Your task to perform on an android device: Open the stopwatch Image 0: 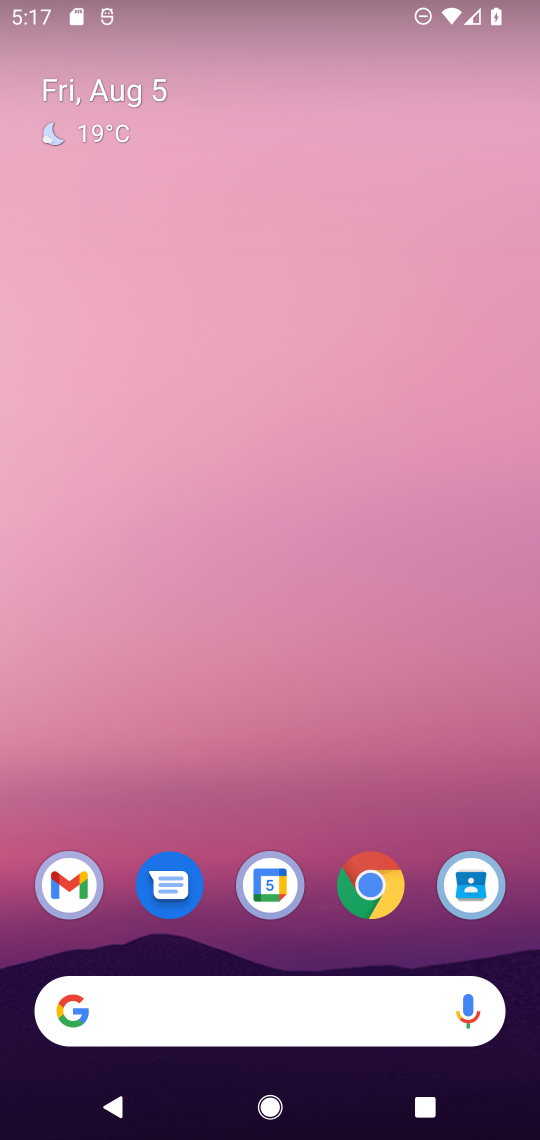
Step 0: drag from (317, 833) to (292, 23)
Your task to perform on an android device: Open the stopwatch Image 1: 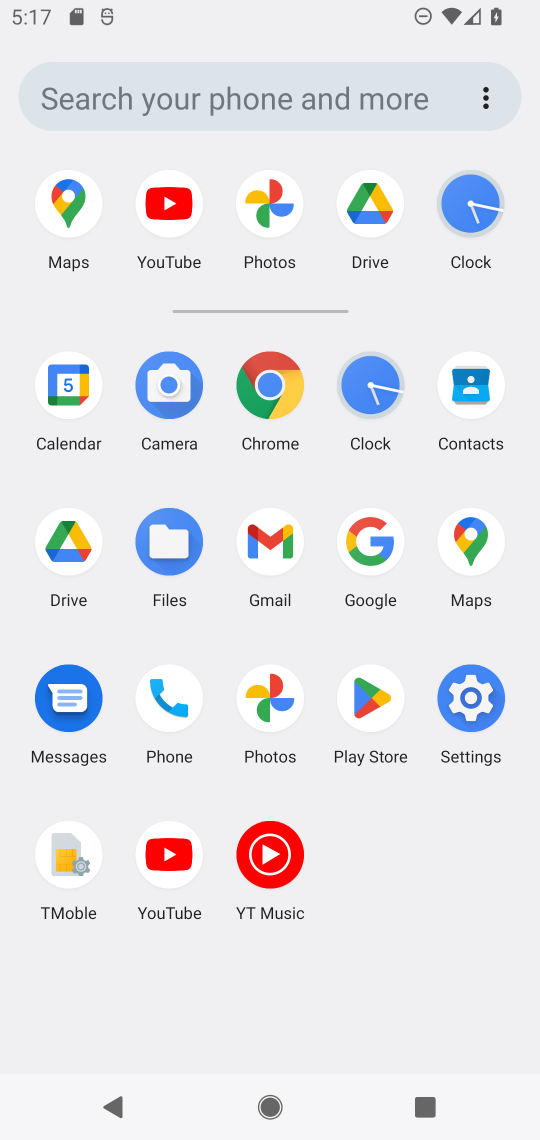
Step 1: click (377, 392)
Your task to perform on an android device: Open the stopwatch Image 2: 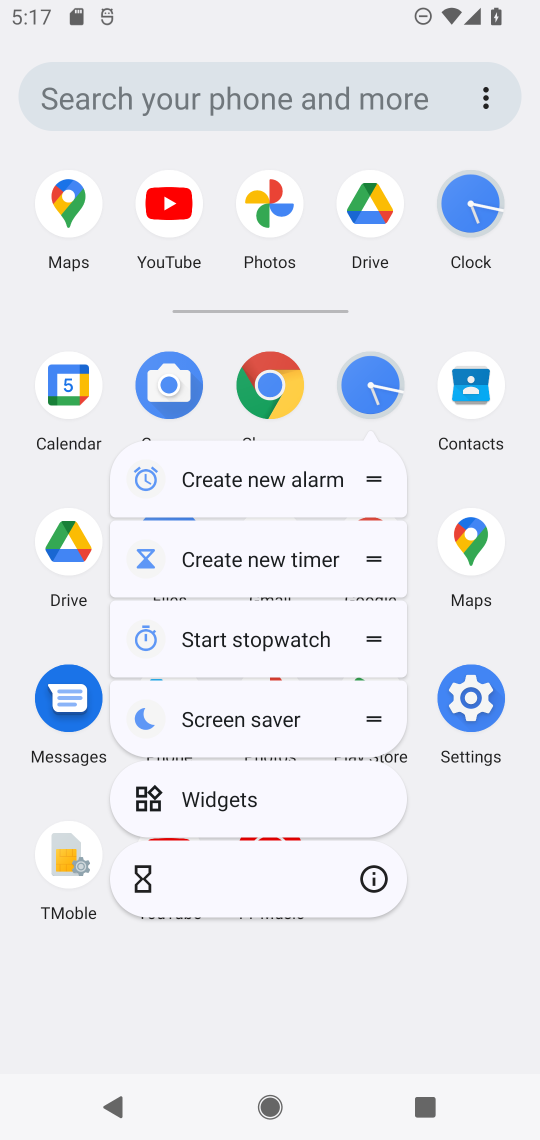
Step 2: click (500, 843)
Your task to perform on an android device: Open the stopwatch Image 3: 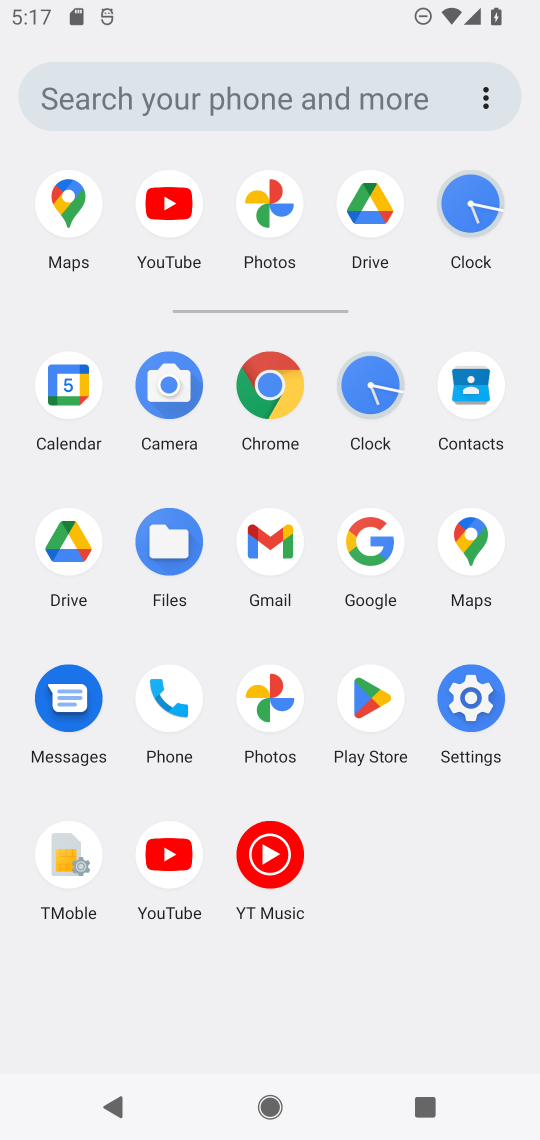
Step 3: click (373, 395)
Your task to perform on an android device: Open the stopwatch Image 4: 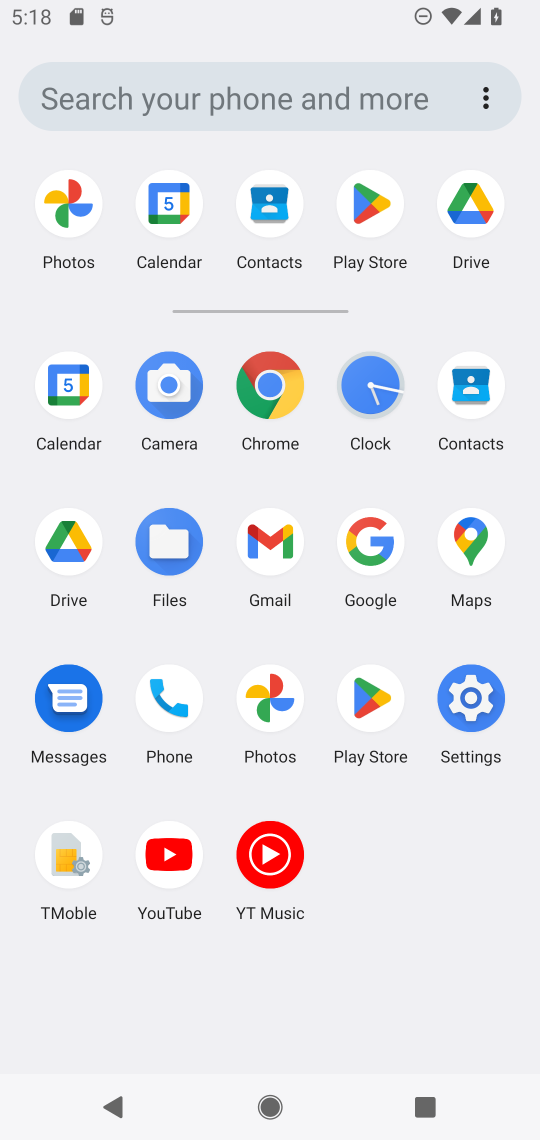
Step 4: click (371, 388)
Your task to perform on an android device: Open the stopwatch Image 5: 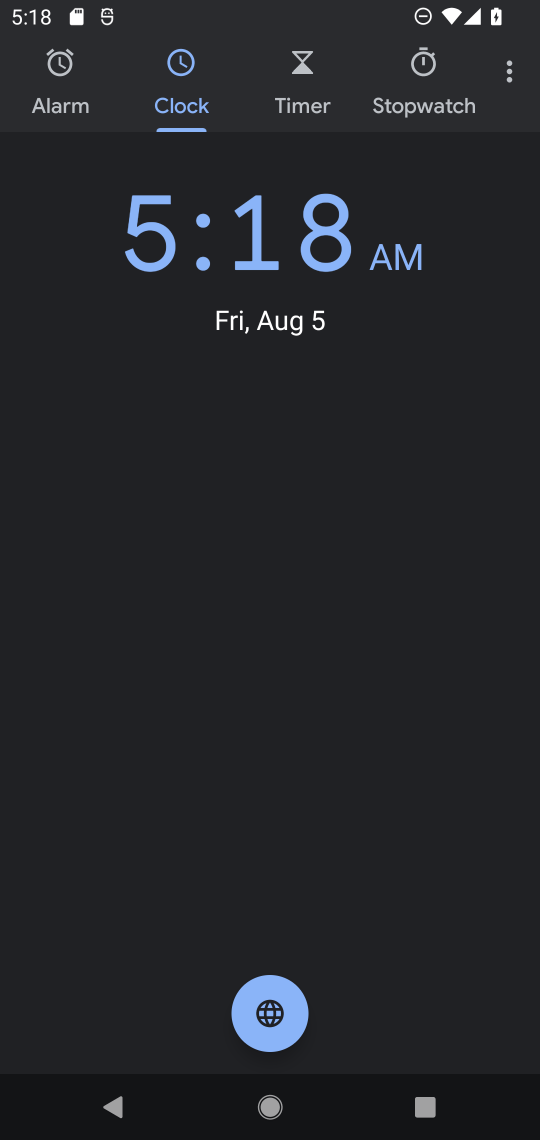
Step 5: click (428, 83)
Your task to perform on an android device: Open the stopwatch Image 6: 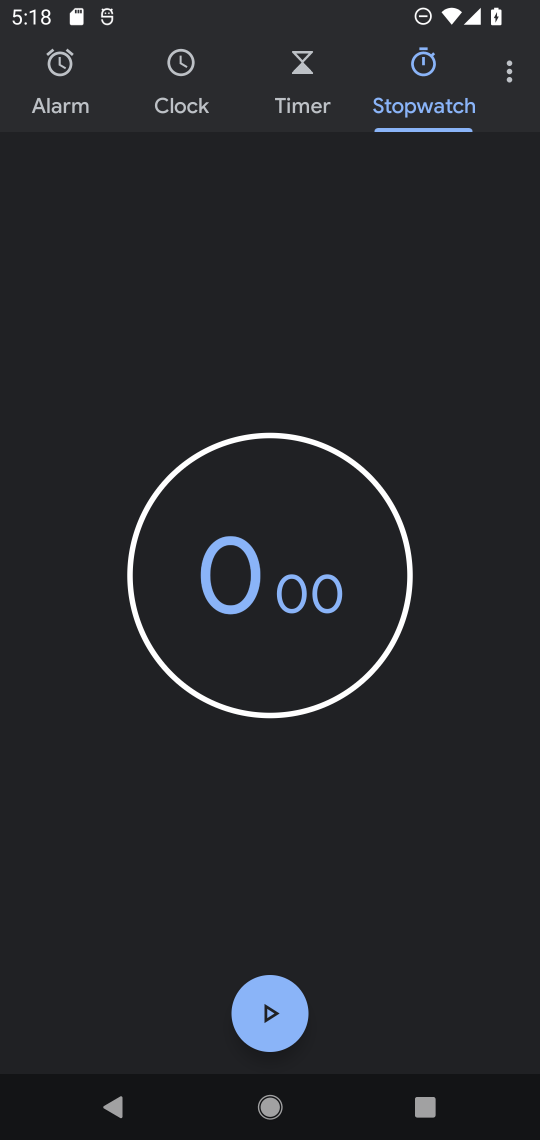
Step 6: task complete